Your task to perform on an android device: Go to display settings Image 0: 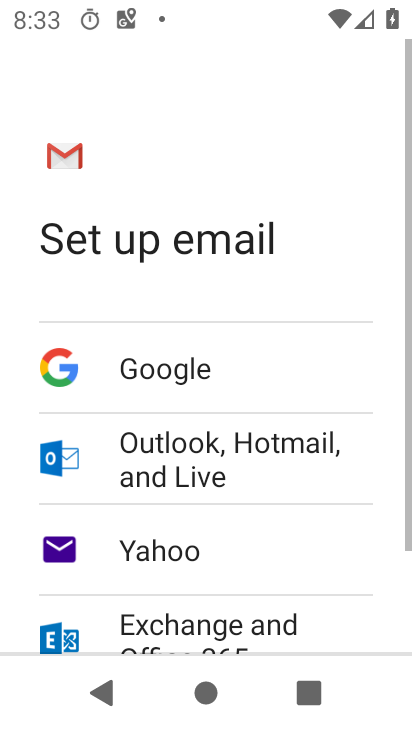
Step 0: press home button
Your task to perform on an android device: Go to display settings Image 1: 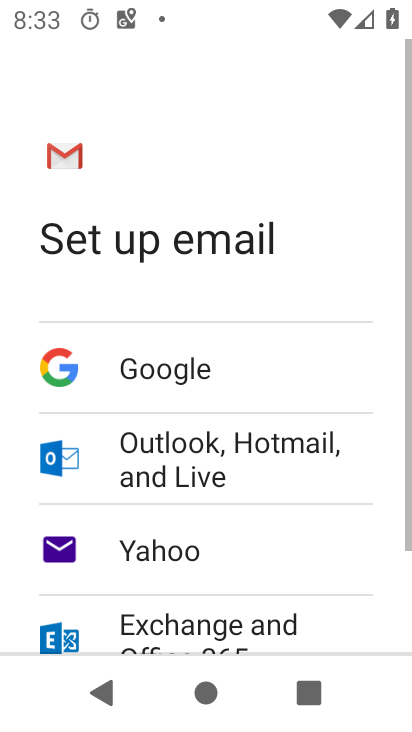
Step 1: press home button
Your task to perform on an android device: Go to display settings Image 2: 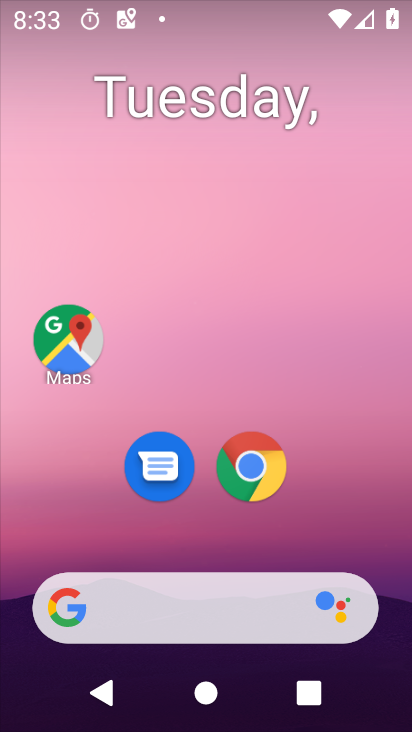
Step 2: drag from (199, 565) to (230, 0)
Your task to perform on an android device: Go to display settings Image 3: 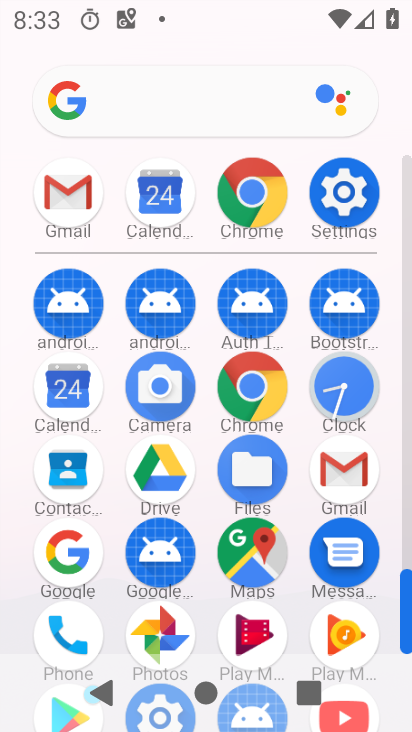
Step 3: click (347, 201)
Your task to perform on an android device: Go to display settings Image 4: 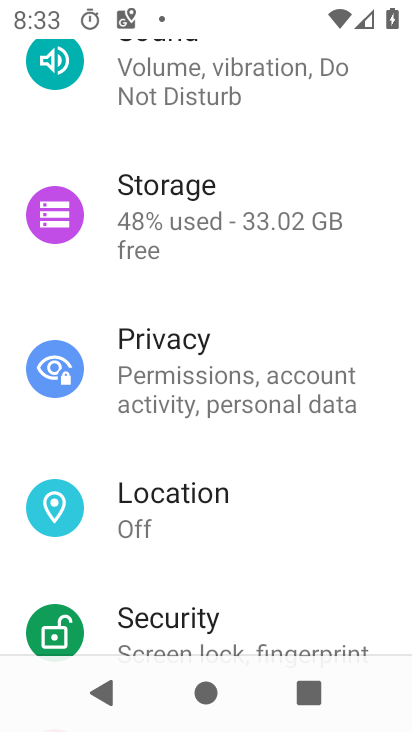
Step 4: drag from (235, 298) to (232, 577)
Your task to perform on an android device: Go to display settings Image 5: 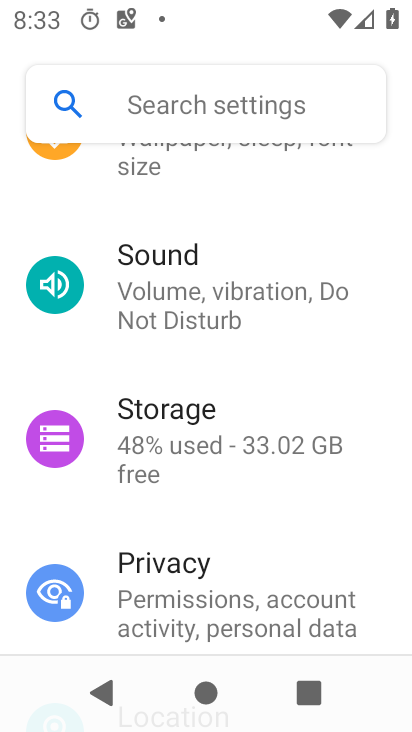
Step 5: drag from (219, 204) to (219, 371)
Your task to perform on an android device: Go to display settings Image 6: 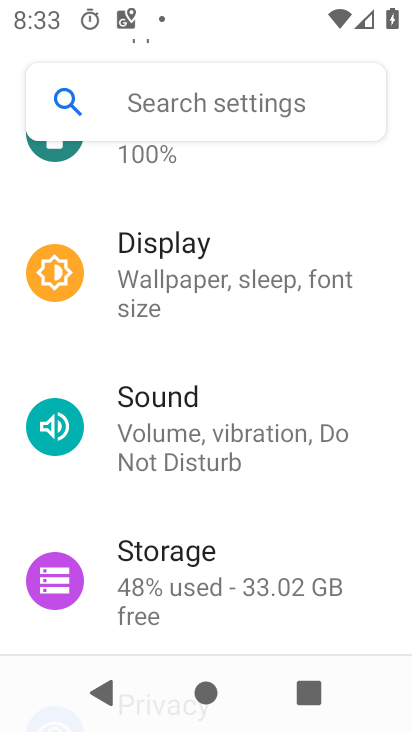
Step 6: click (167, 288)
Your task to perform on an android device: Go to display settings Image 7: 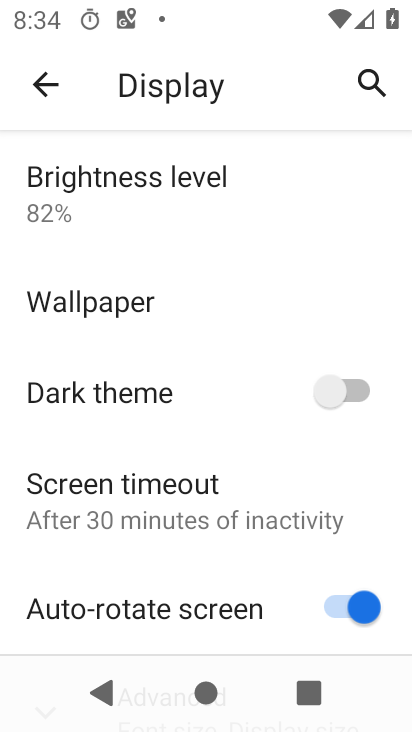
Step 7: task complete